Your task to perform on an android device: Open Maps and search for coffee Image 0: 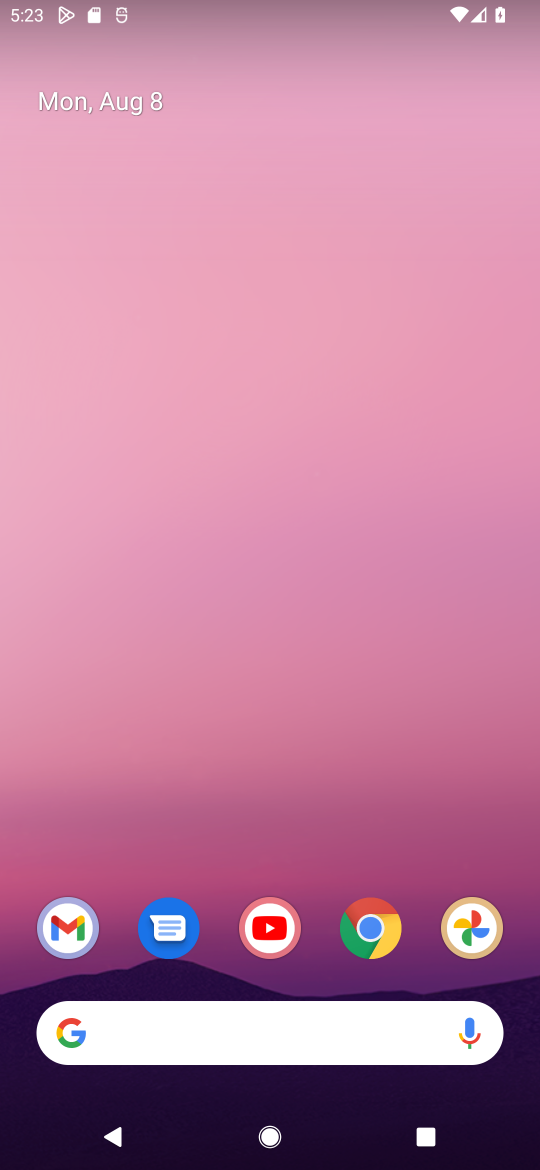
Step 0: drag from (272, 943) to (293, 137)
Your task to perform on an android device: Open Maps and search for coffee Image 1: 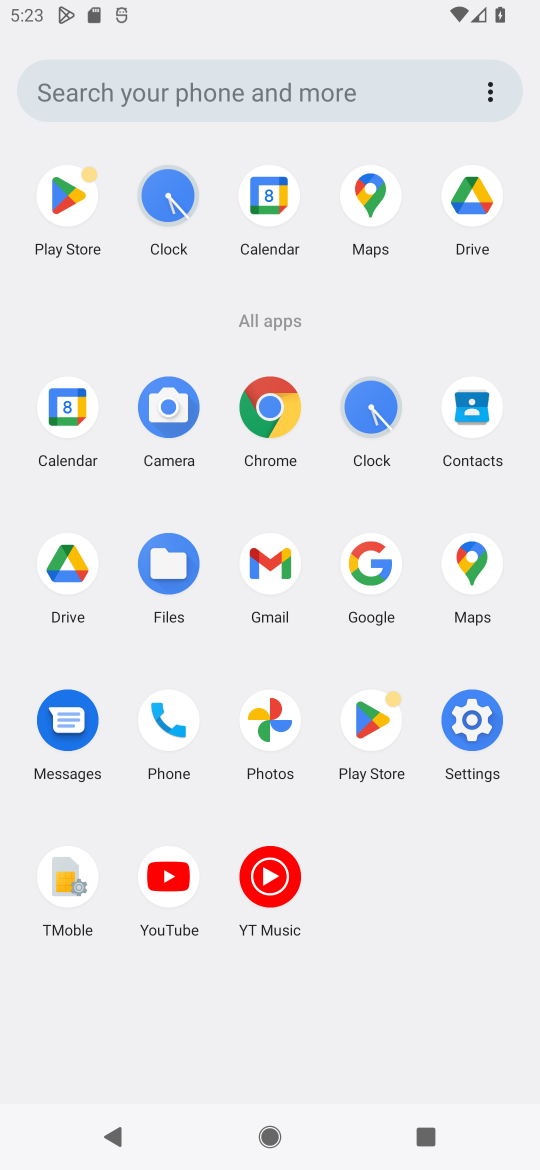
Step 1: click (470, 570)
Your task to perform on an android device: Open Maps and search for coffee Image 2: 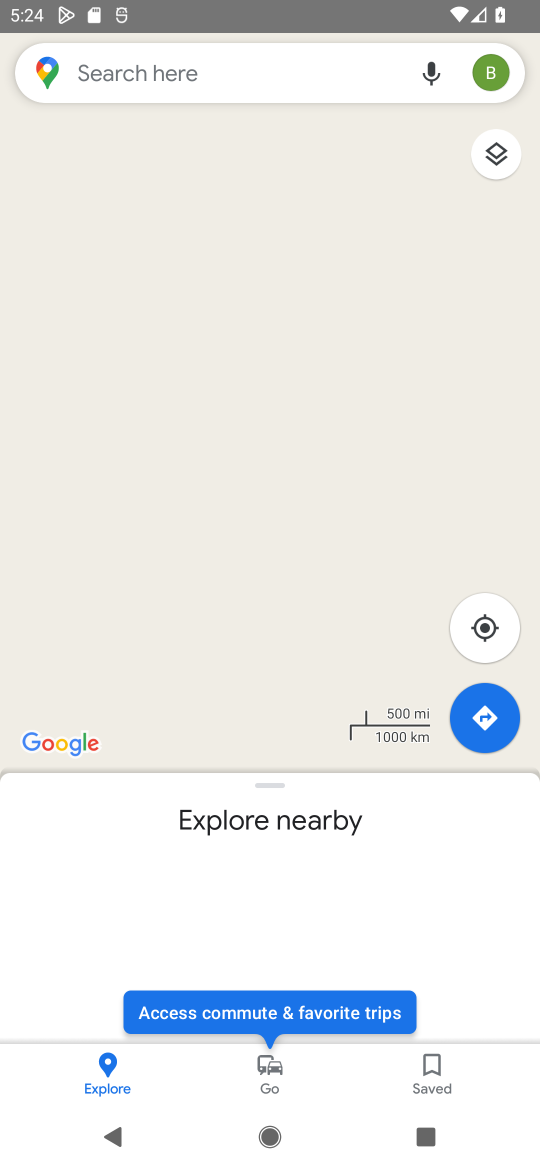
Step 2: click (266, 78)
Your task to perform on an android device: Open Maps and search for coffee Image 3: 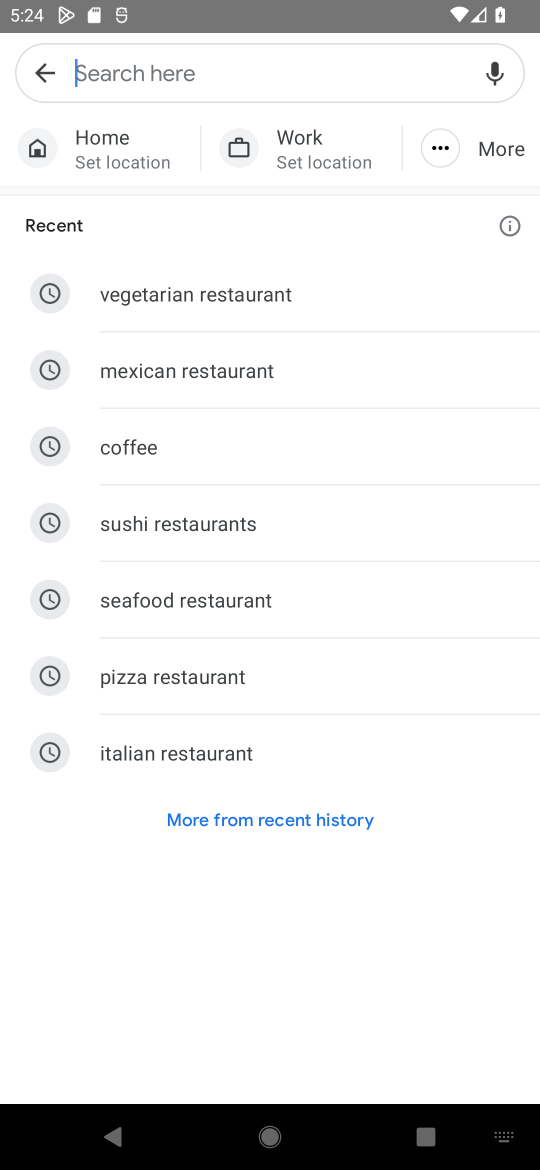
Step 3: type "coffee"
Your task to perform on an android device: Open Maps and search for coffee Image 4: 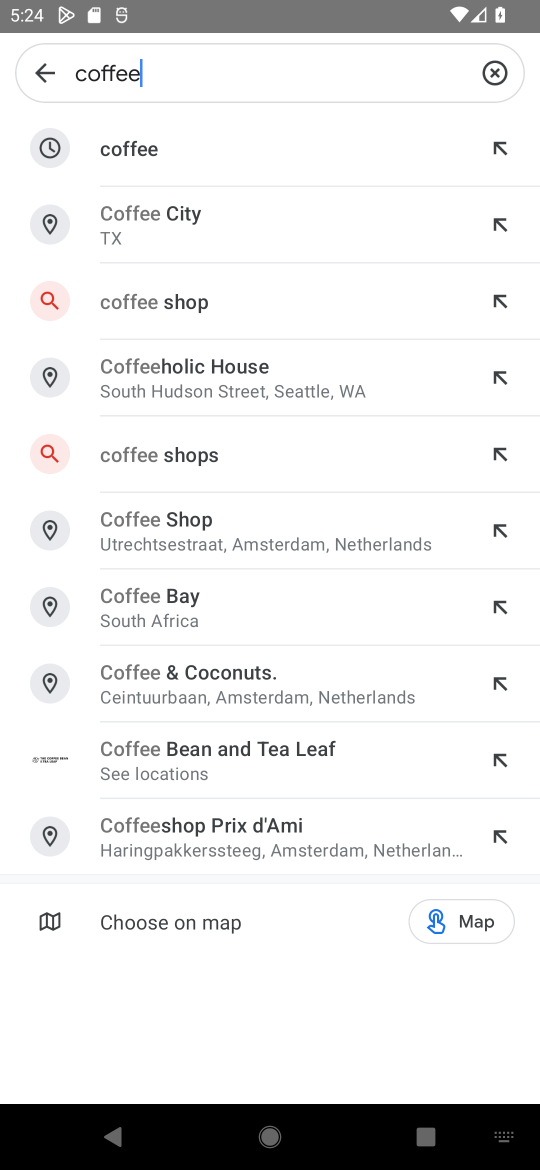
Step 4: click (169, 138)
Your task to perform on an android device: Open Maps and search for coffee Image 5: 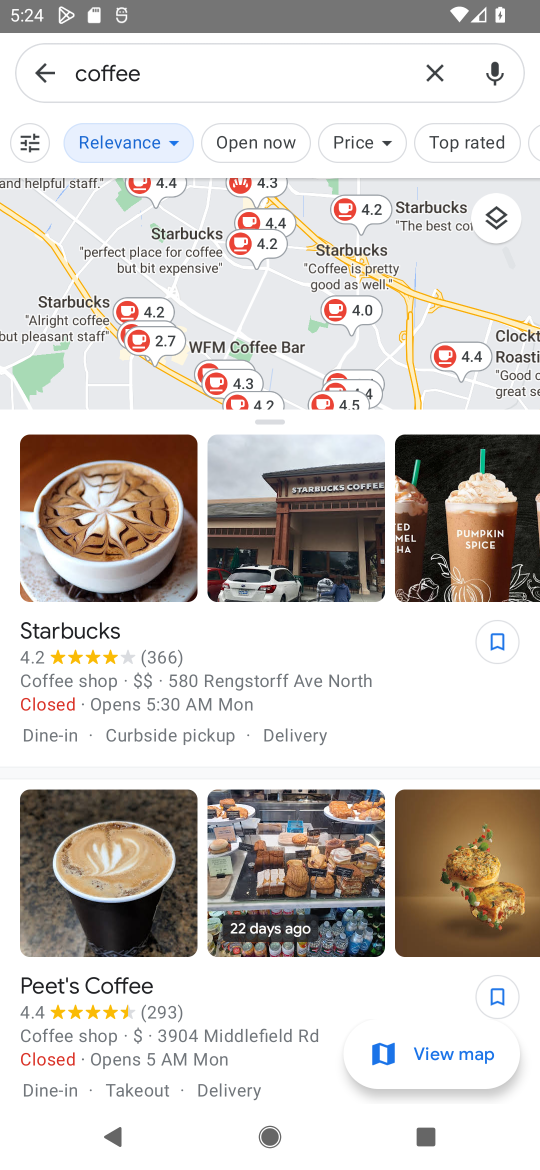
Step 5: task complete